Your task to perform on an android device: Go to location settings Image 0: 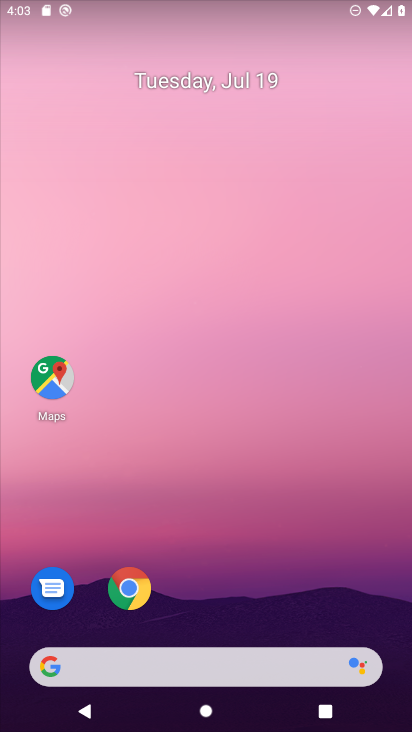
Step 0: drag from (181, 609) to (206, 289)
Your task to perform on an android device: Go to location settings Image 1: 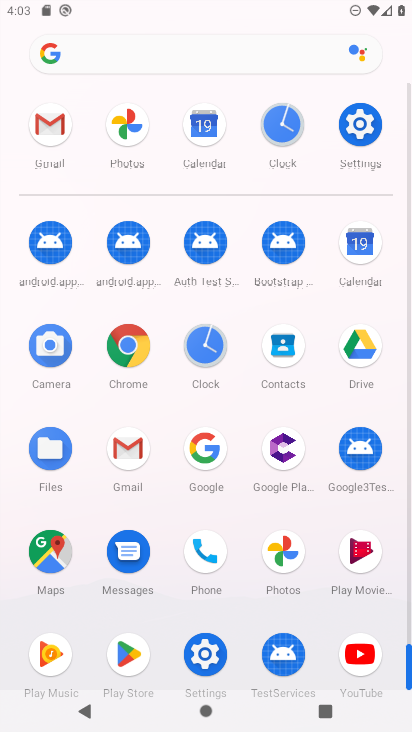
Step 1: click (355, 130)
Your task to perform on an android device: Go to location settings Image 2: 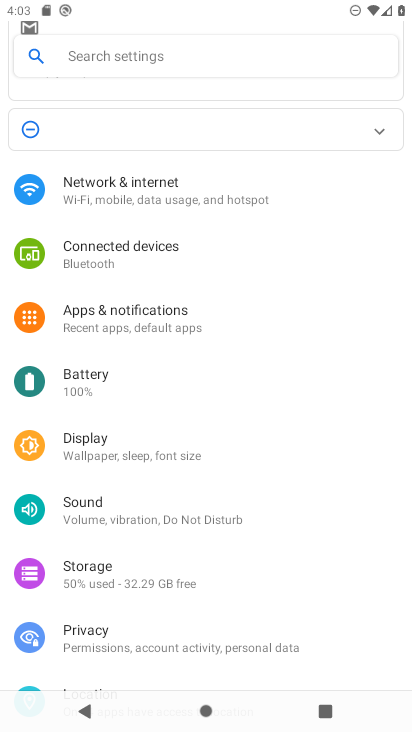
Step 2: drag from (116, 569) to (162, 195)
Your task to perform on an android device: Go to location settings Image 3: 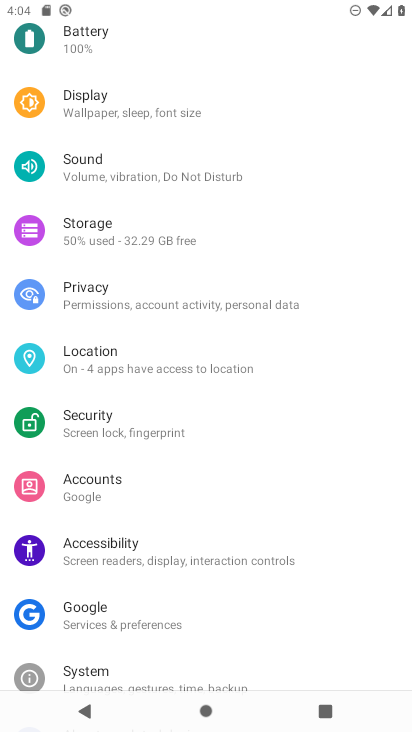
Step 3: click (103, 361)
Your task to perform on an android device: Go to location settings Image 4: 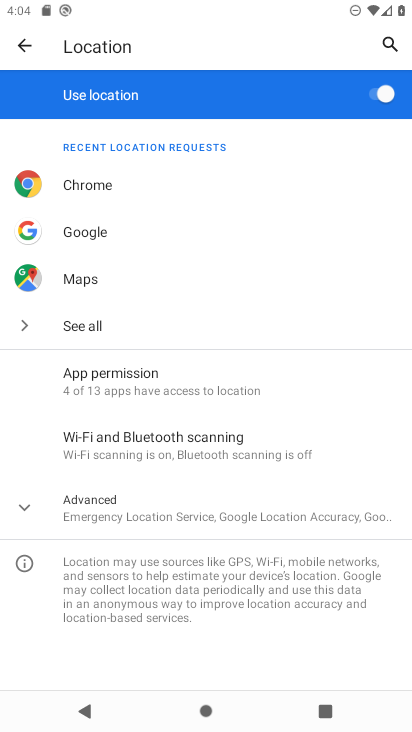
Step 4: task complete